Your task to perform on an android device: Search for "jbl flip 4" on bestbuy.com, select the first entry, and add it to the cart. Image 0: 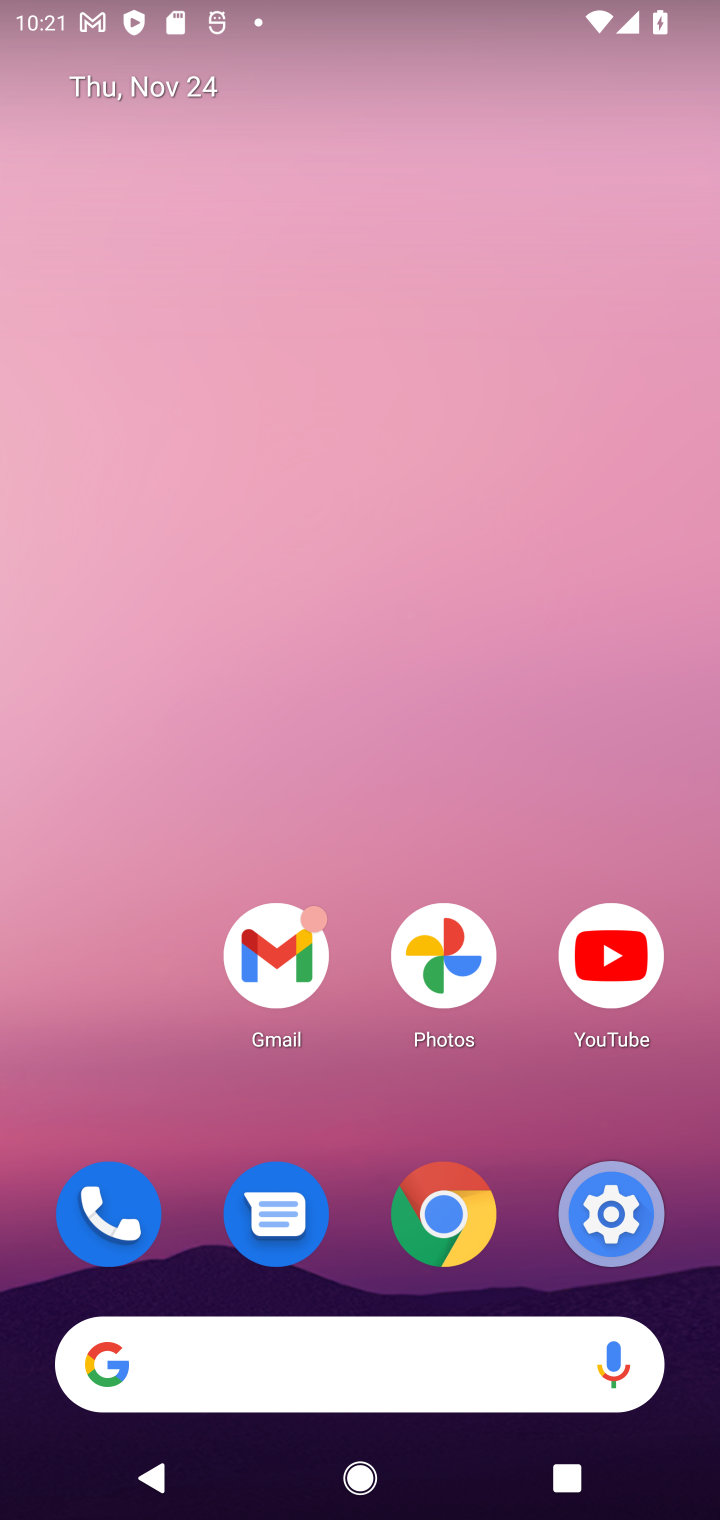
Step 0: click (397, 1375)
Your task to perform on an android device: Search for "jbl flip 4" on bestbuy.com, select the first entry, and add it to the cart. Image 1: 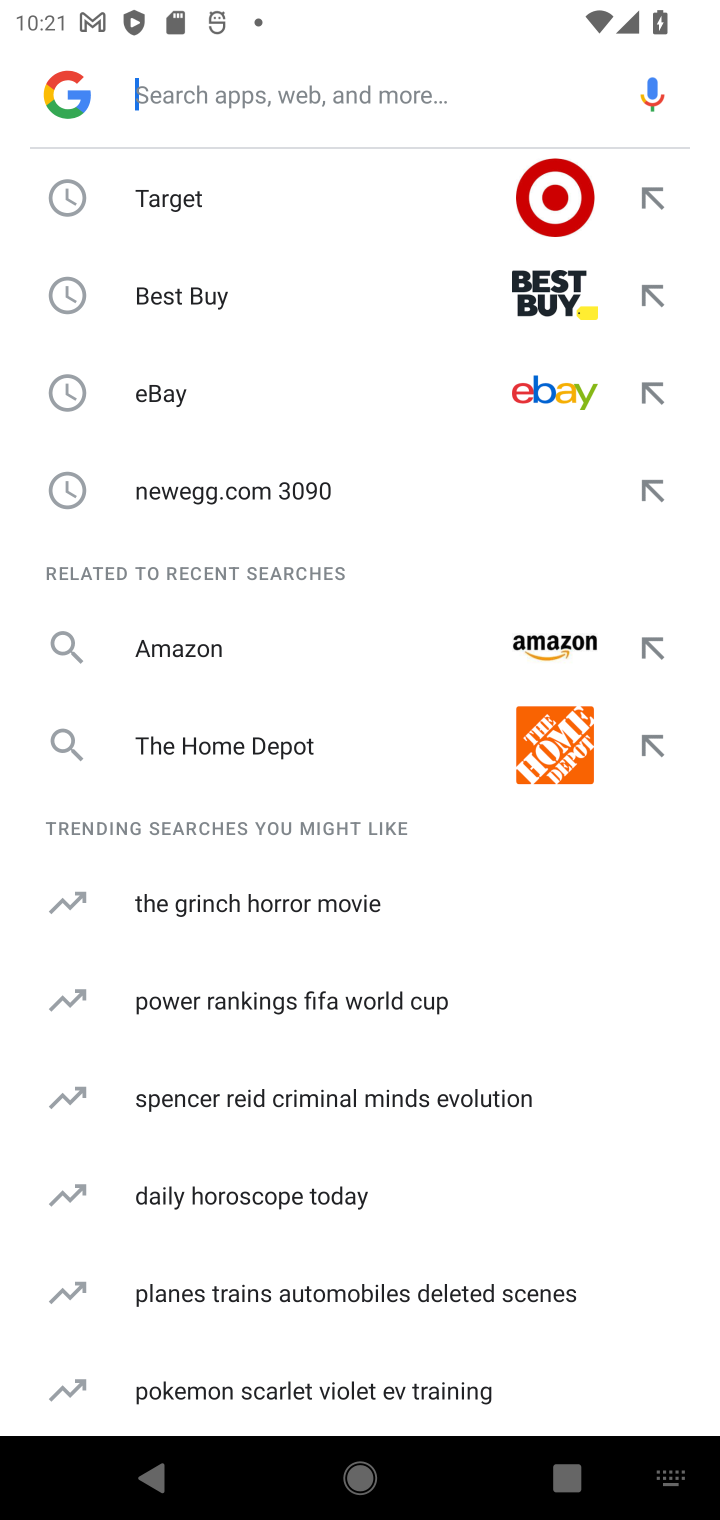
Step 1: type "bestbuy"
Your task to perform on an android device: Search for "jbl flip 4" on bestbuy.com, select the first entry, and add it to the cart. Image 2: 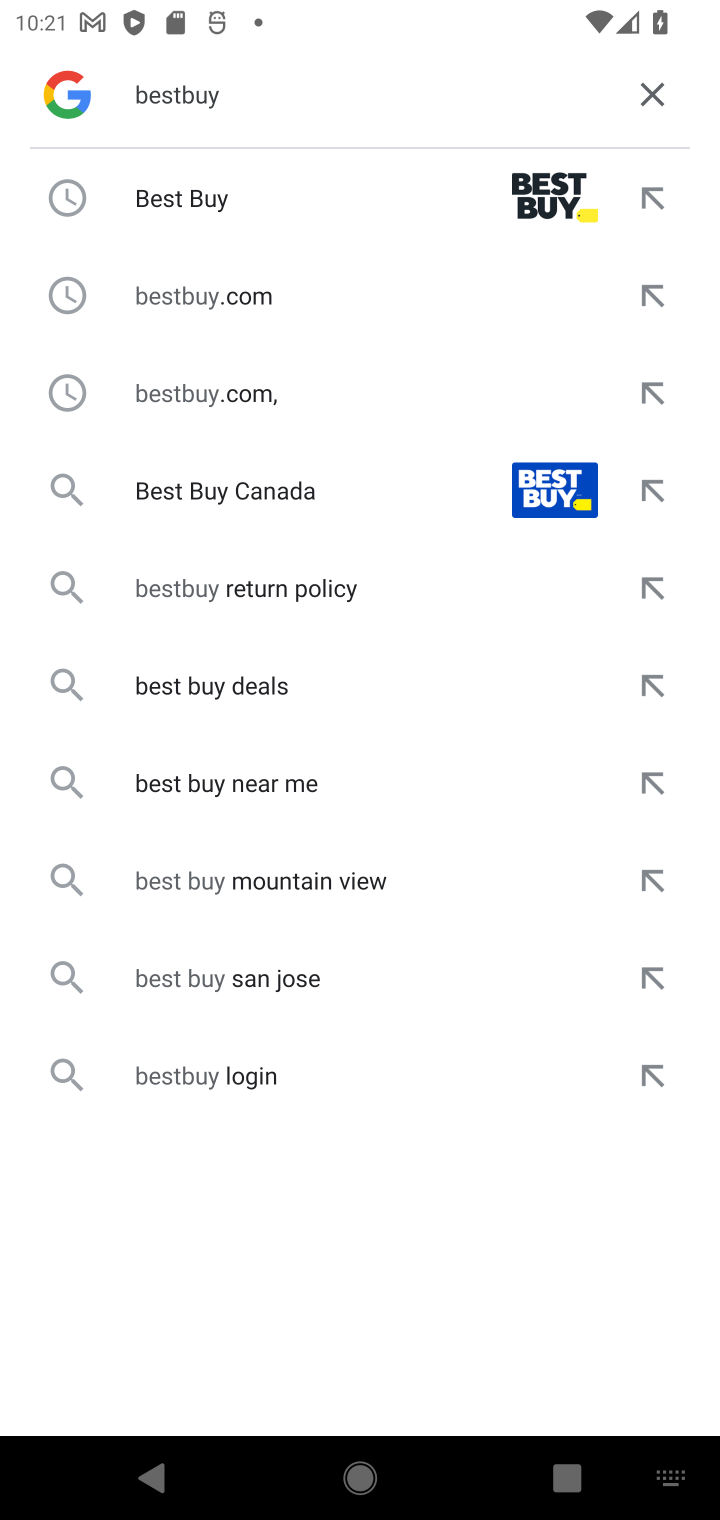
Step 2: click (239, 217)
Your task to perform on an android device: Search for "jbl flip 4" on bestbuy.com, select the first entry, and add it to the cart. Image 3: 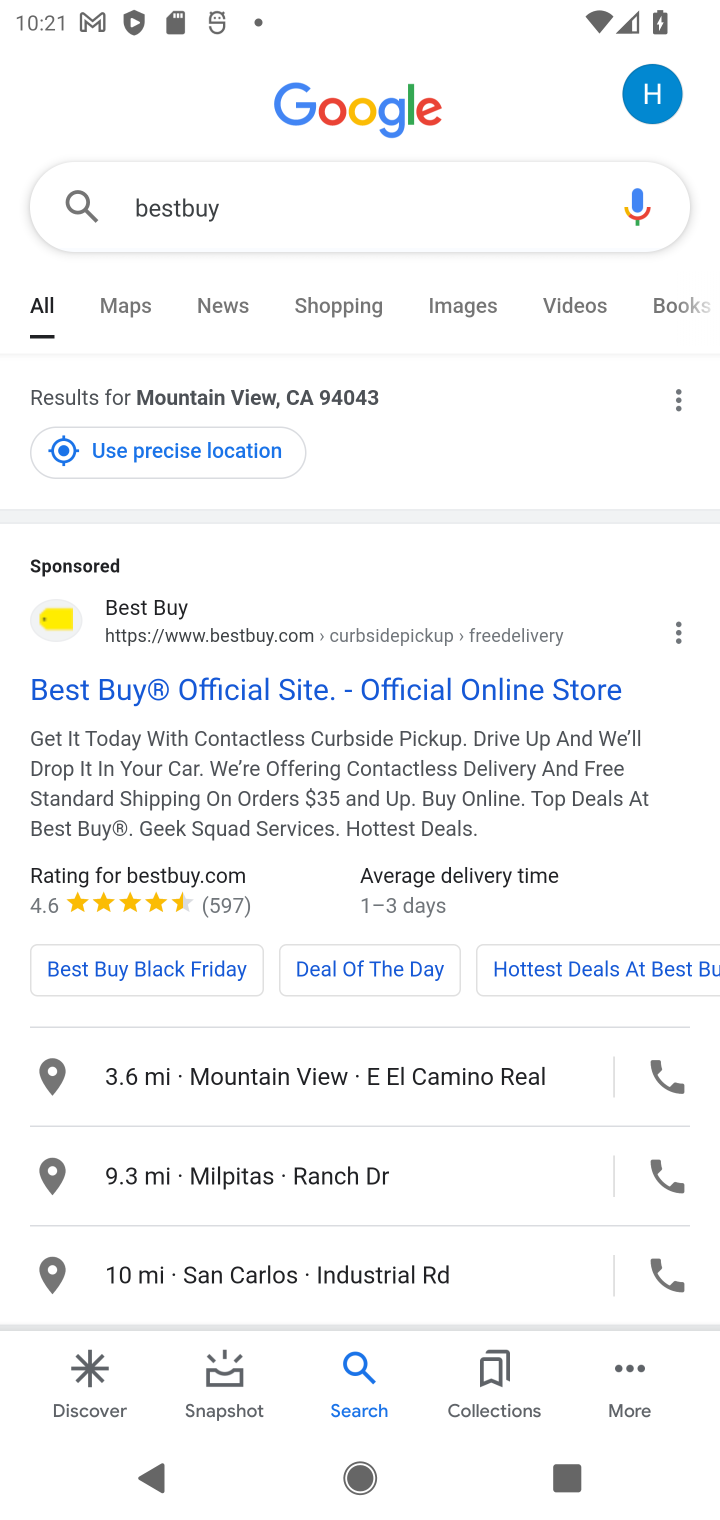
Step 3: click (200, 679)
Your task to perform on an android device: Search for "jbl flip 4" on bestbuy.com, select the first entry, and add it to the cart. Image 4: 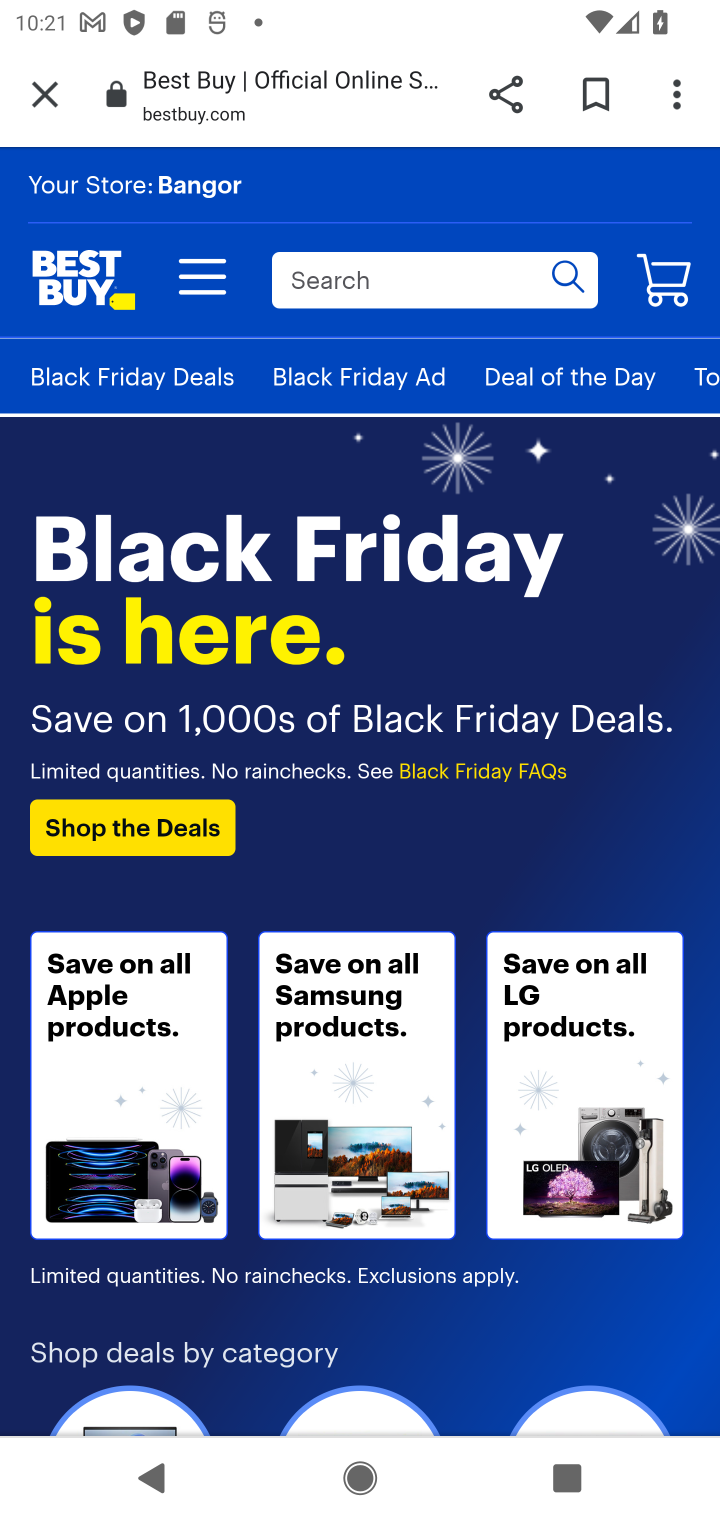
Step 4: click (399, 295)
Your task to perform on an android device: Search for "jbl flip 4" on bestbuy.com, select the first entry, and add it to the cart. Image 5: 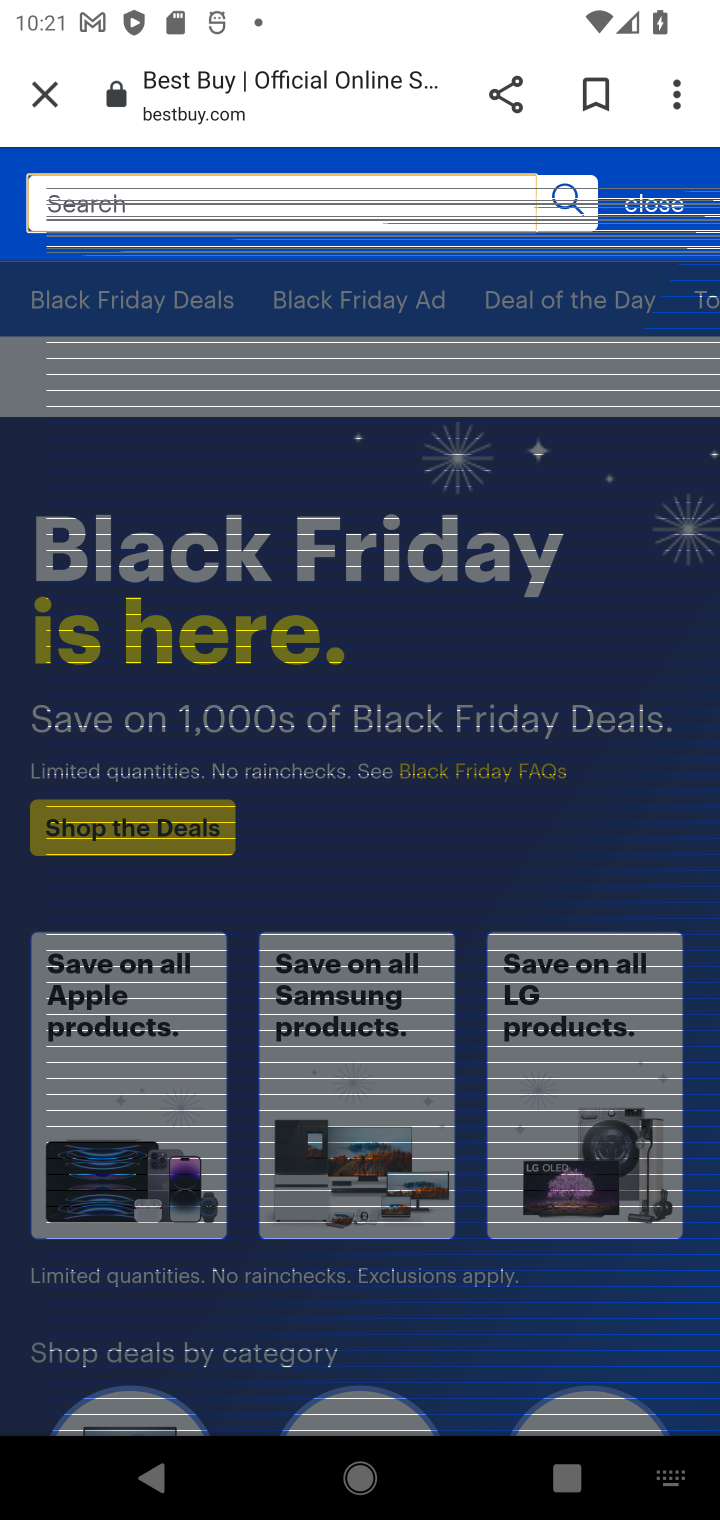
Step 5: type "jbl flip 4"
Your task to perform on an android device: Search for "jbl flip 4" on bestbuy.com, select the first entry, and add it to the cart. Image 6: 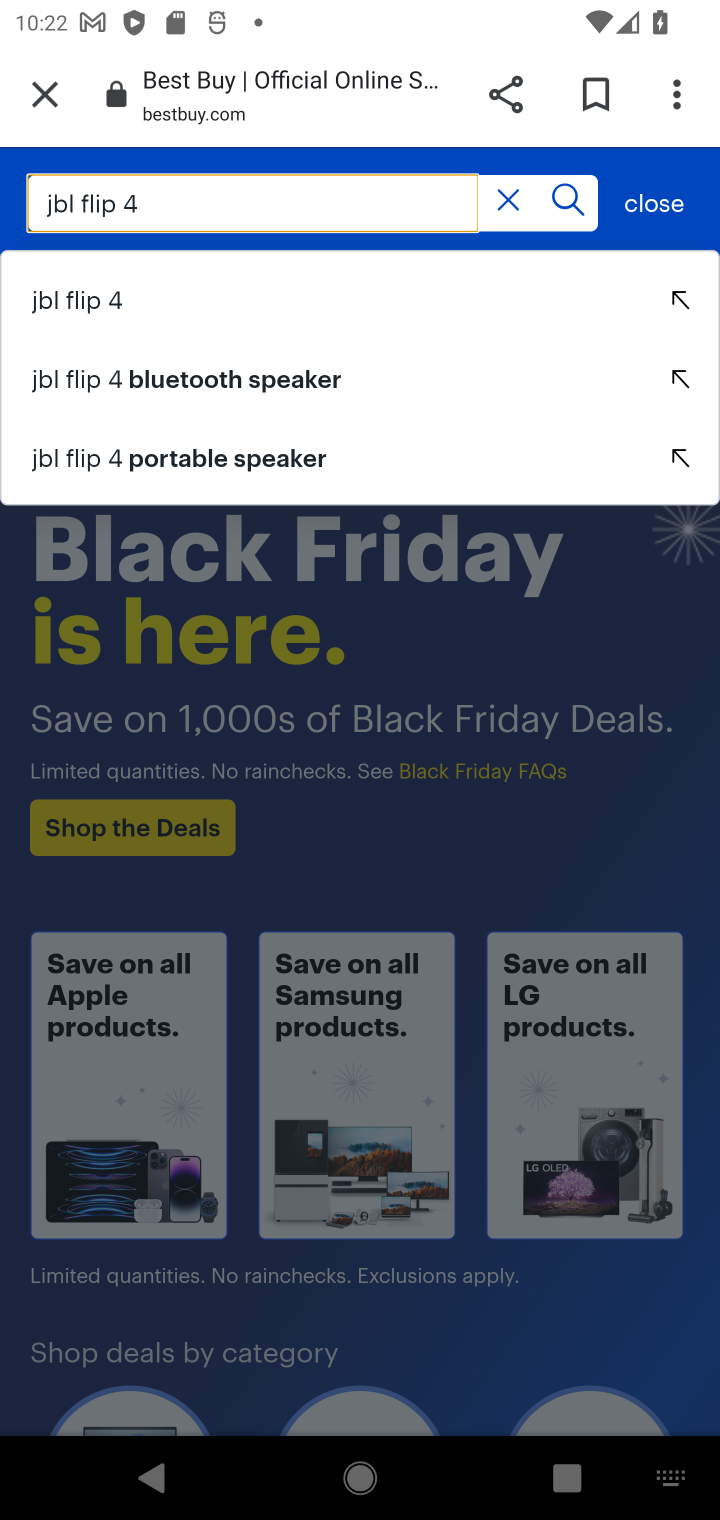
Step 6: click (172, 314)
Your task to perform on an android device: Search for "jbl flip 4" on bestbuy.com, select the first entry, and add it to the cart. Image 7: 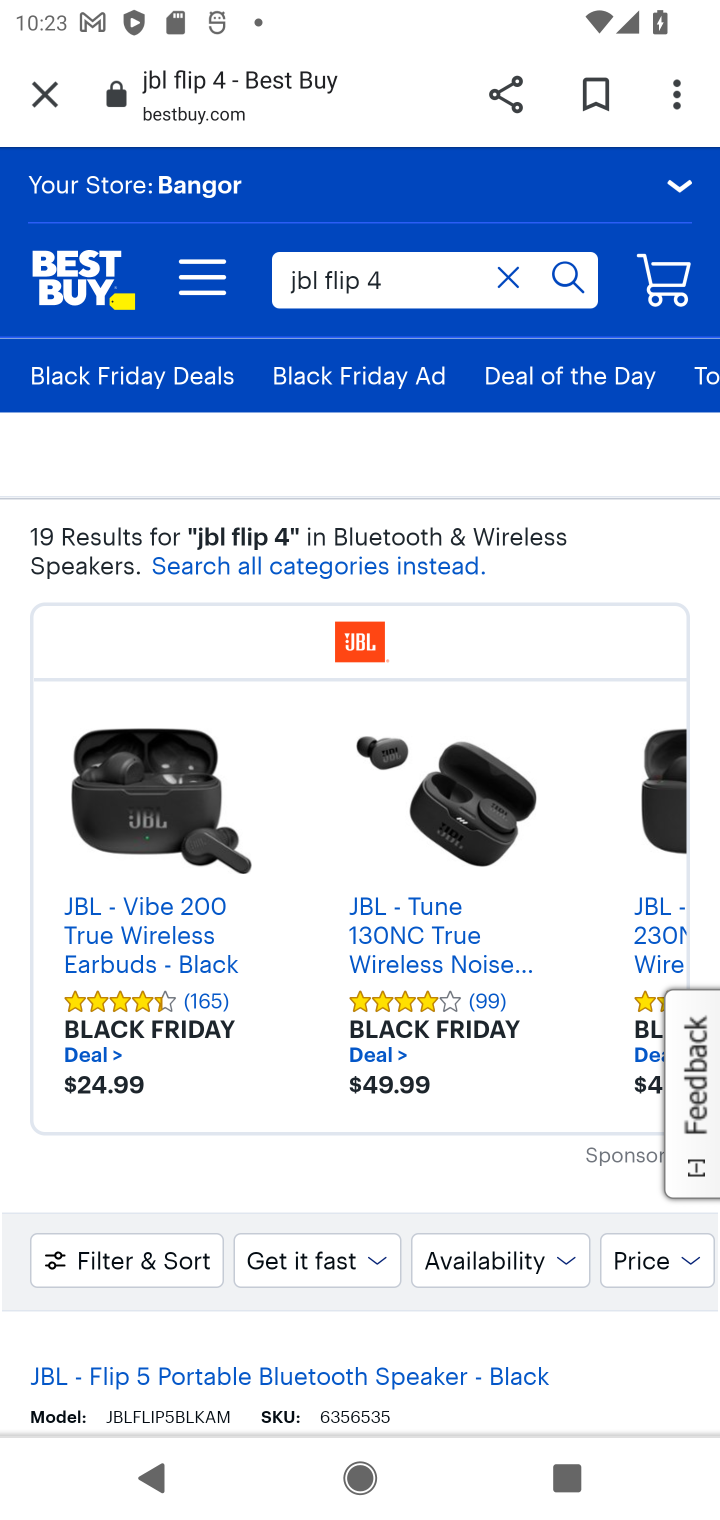
Step 7: task complete